Your task to perform on an android device: Go to Google Image 0: 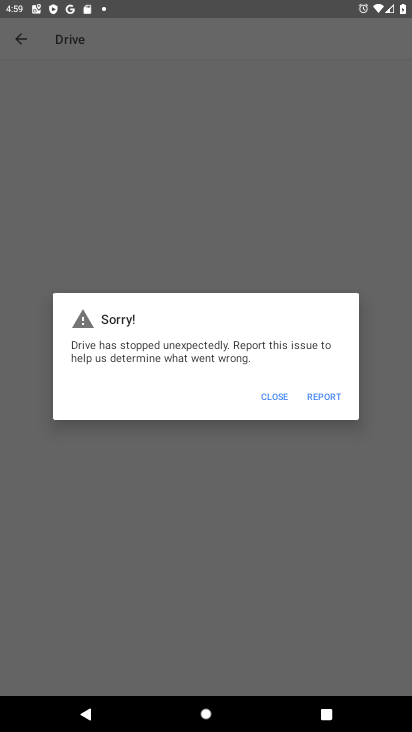
Step 0: press home button
Your task to perform on an android device: Go to Google Image 1: 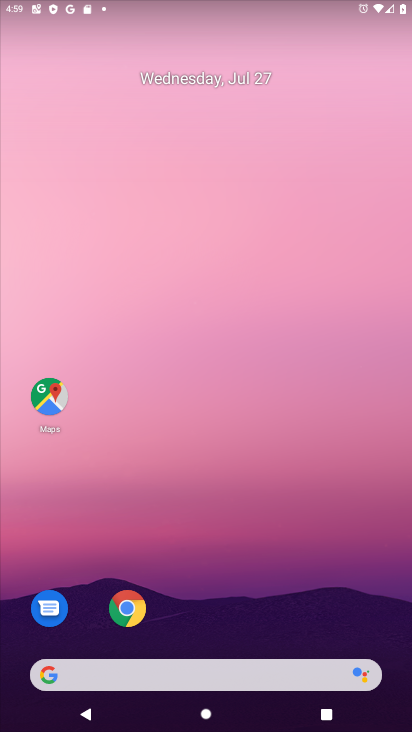
Step 1: click (177, 688)
Your task to perform on an android device: Go to Google Image 2: 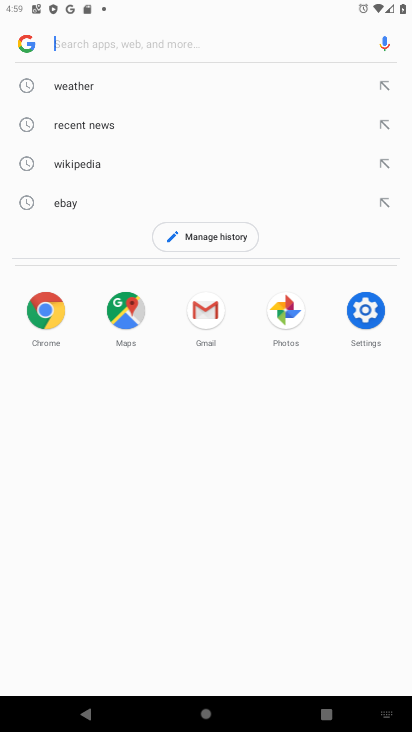
Step 2: task complete